Your task to perform on an android device: turn on notifications settings in the gmail app Image 0: 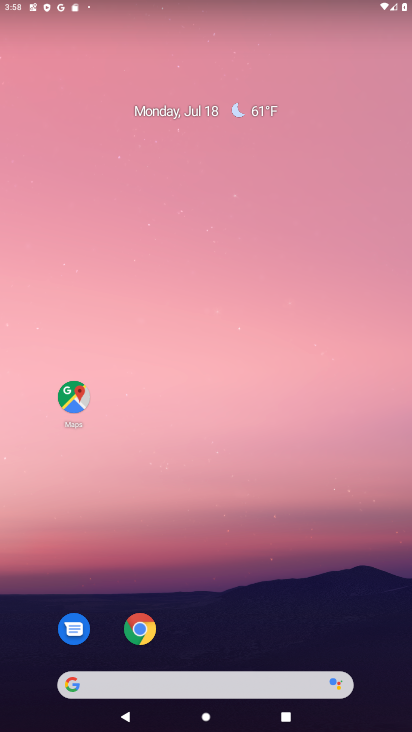
Step 0: drag from (169, 675) to (206, 230)
Your task to perform on an android device: turn on notifications settings in the gmail app Image 1: 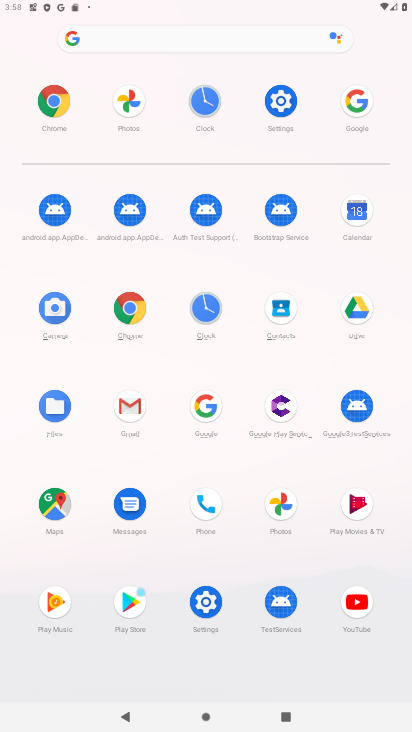
Step 1: click (133, 418)
Your task to perform on an android device: turn on notifications settings in the gmail app Image 2: 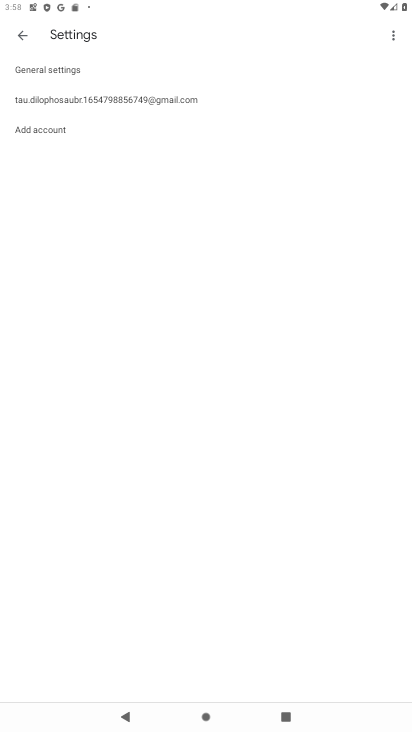
Step 2: click (50, 104)
Your task to perform on an android device: turn on notifications settings in the gmail app Image 3: 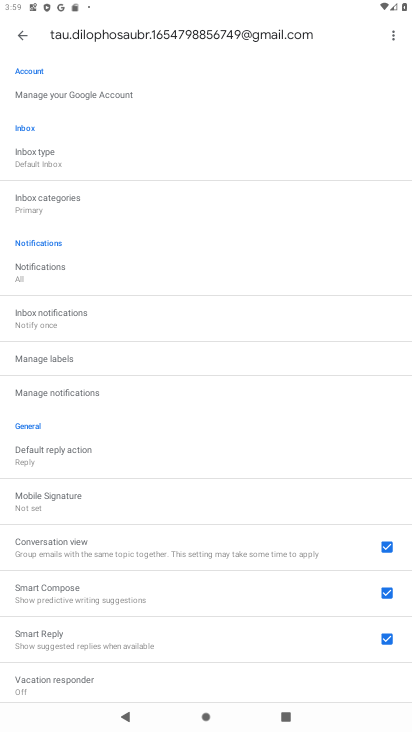
Step 3: click (54, 397)
Your task to perform on an android device: turn on notifications settings in the gmail app Image 4: 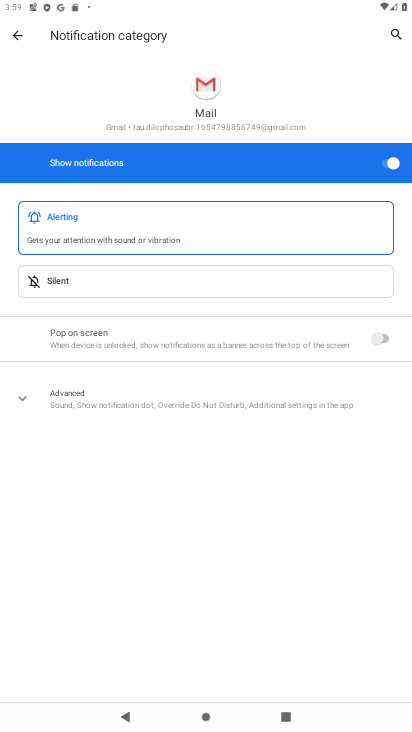
Step 4: task complete